Your task to perform on an android device: Go to Reddit.com Image 0: 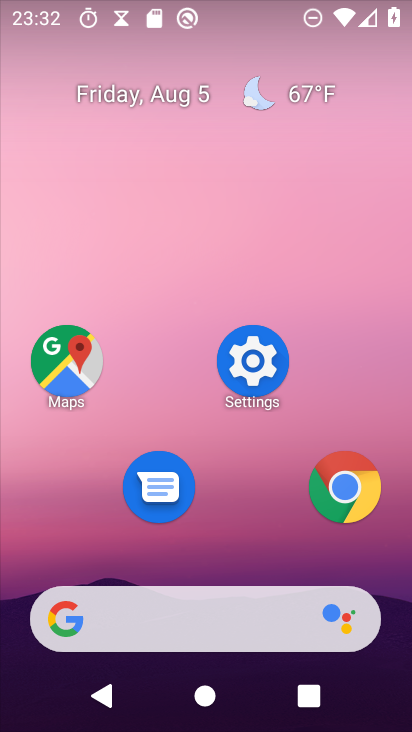
Step 0: click (338, 495)
Your task to perform on an android device: Go to Reddit.com Image 1: 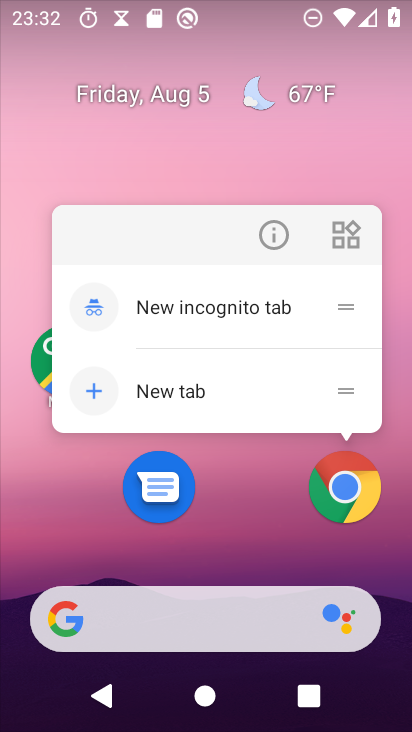
Step 1: click (338, 495)
Your task to perform on an android device: Go to Reddit.com Image 2: 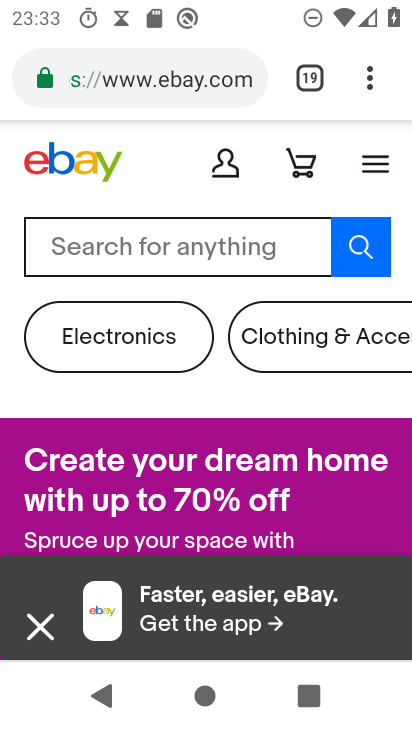
Step 2: drag from (374, 86) to (195, 155)
Your task to perform on an android device: Go to Reddit.com Image 3: 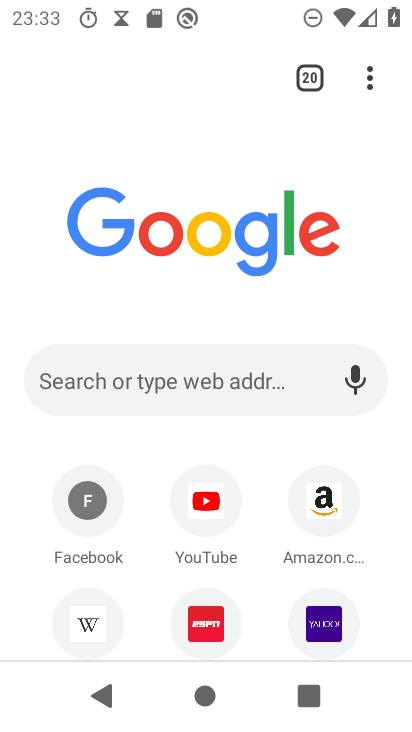
Step 3: click (99, 376)
Your task to perform on an android device: Go to Reddit.com Image 4: 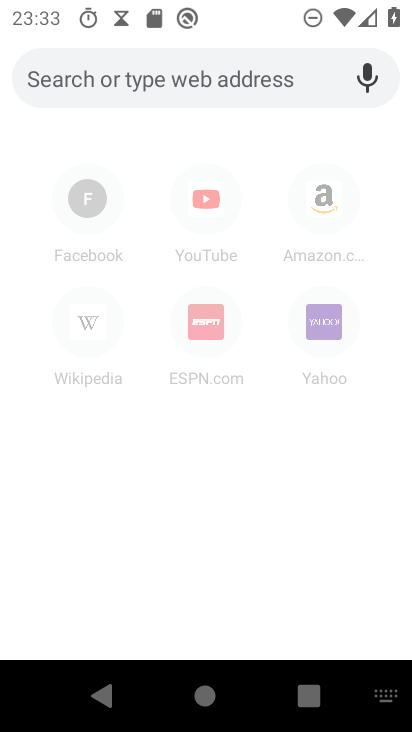
Step 4: type "Reddit.com"
Your task to perform on an android device: Go to Reddit.com Image 5: 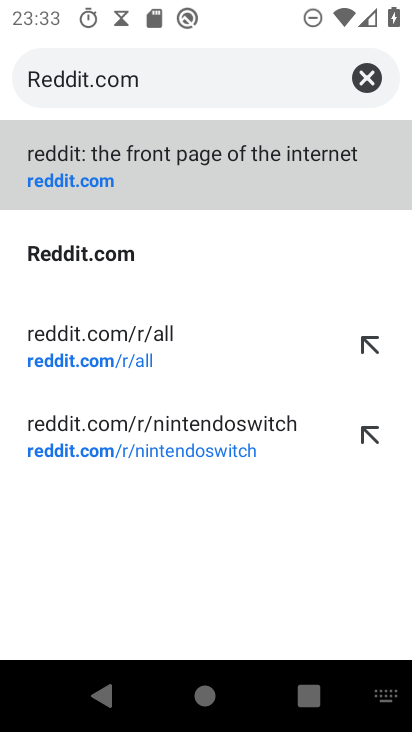
Step 5: click (227, 178)
Your task to perform on an android device: Go to Reddit.com Image 6: 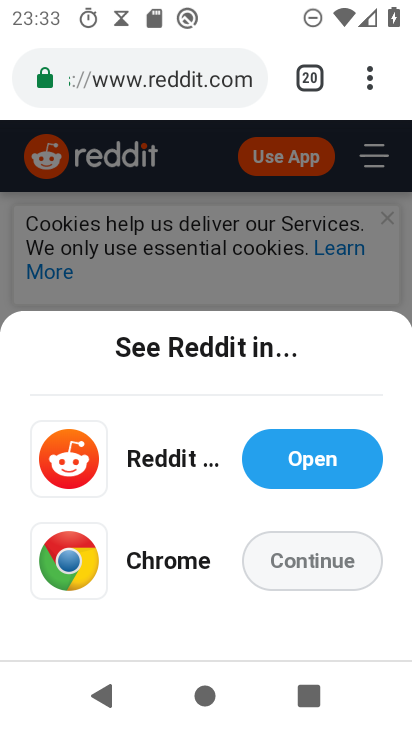
Step 6: task complete